Your task to perform on an android device: Open calendar and show me the third week of next month Image 0: 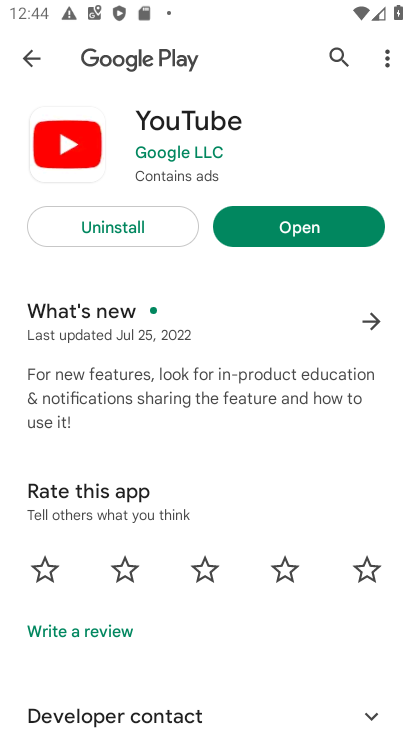
Step 0: press home button
Your task to perform on an android device: Open calendar and show me the third week of next month Image 1: 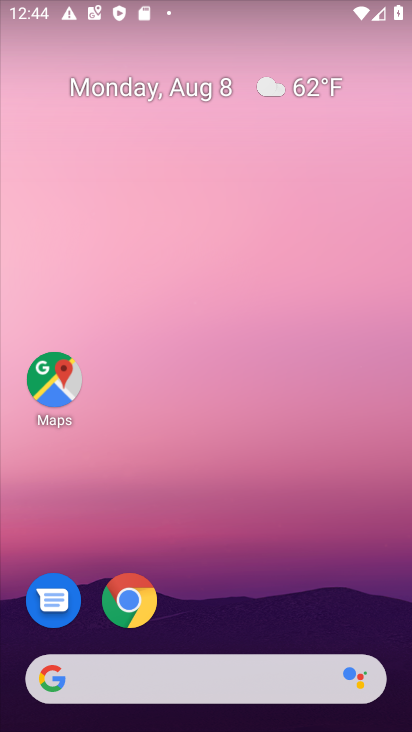
Step 1: drag from (215, 614) to (220, 148)
Your task to perform on an android device: Open calendar and show me the third week of next month Image 2: 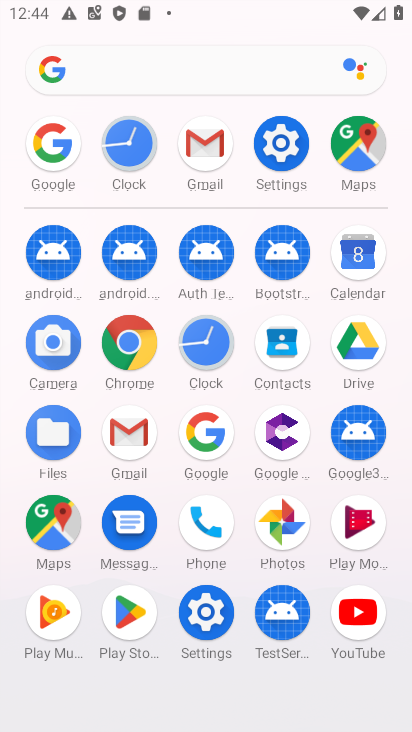
Step 2: click (352, 276)
Your task to perform on an android device: Open calendar and show me the third week of next month Image 3: 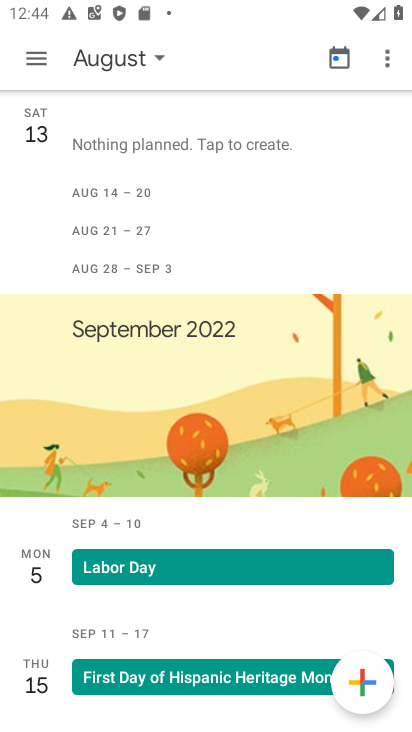
Step 3: click (151, 55)
Your task to perform on an android device: Open calendar and show me the third week of next month Image 4: 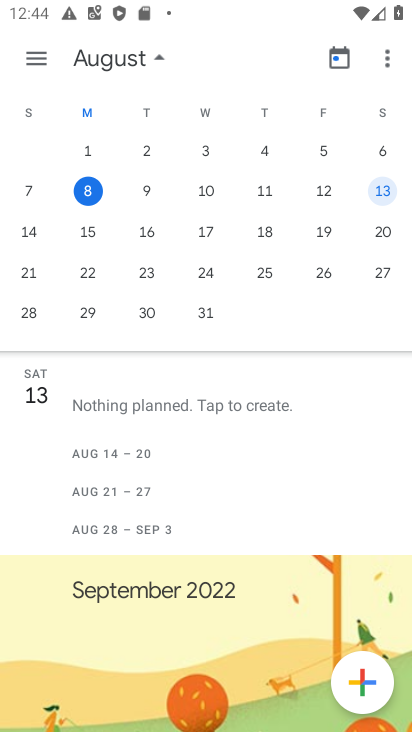
Step 4: drag from (337, 201) to (0, 182)
Your task to perform on an android device: Open calendar and show me the third week of next month Image 5: 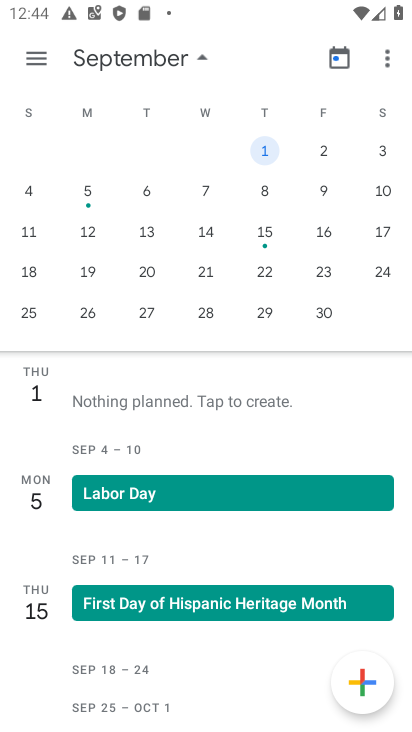
Step 5: click (39, 231)
Your task to perform on an android device: Open calendar and show me the third week of next month Image 6: 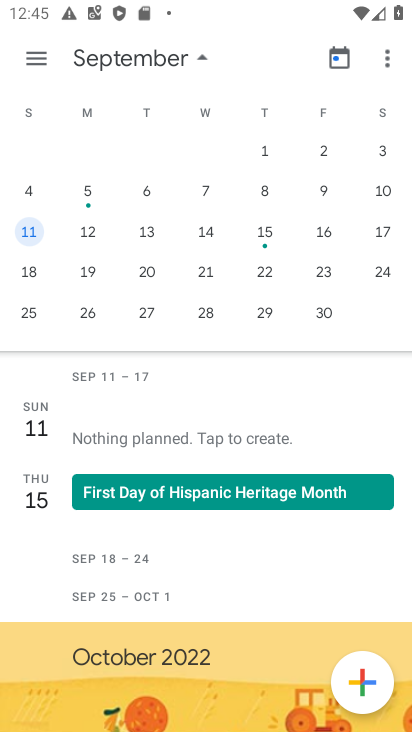
Step 6: task complete